Your task to perform on an android device: Open the calendar app Image 0: 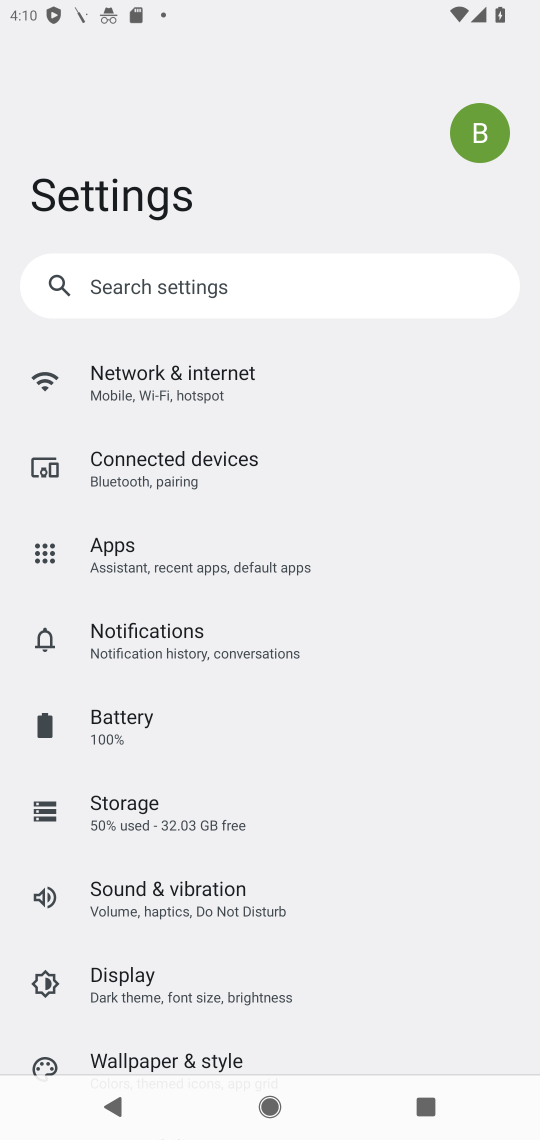
Step 0: press home button
Your task to perform on an android device: Open the calendar app Image 1: 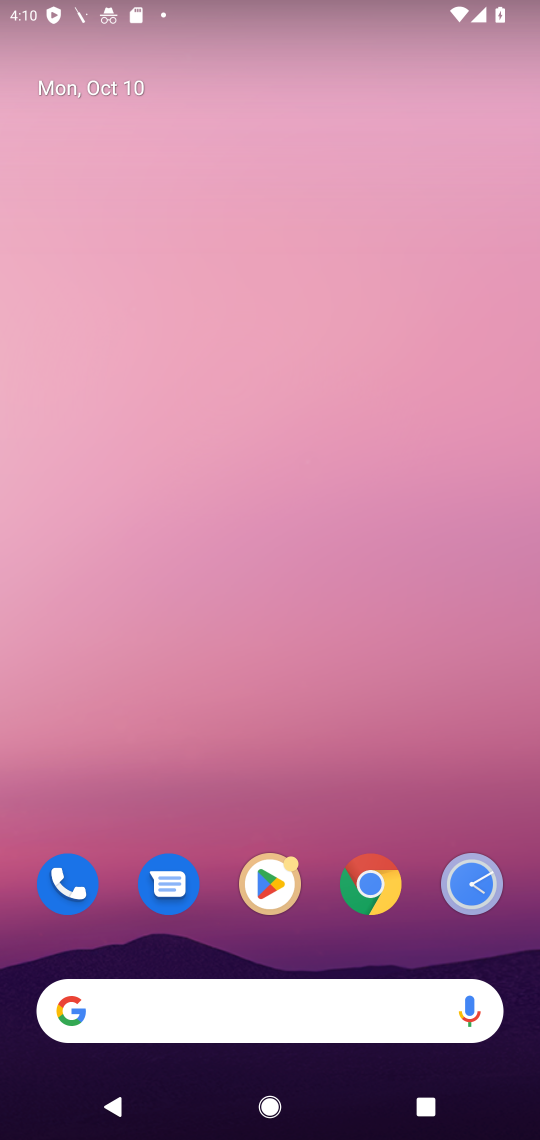
Step 1: drag from (221, 943) to (108, 148)
Your task to perform on an android device: Open the calendar app Image 2: 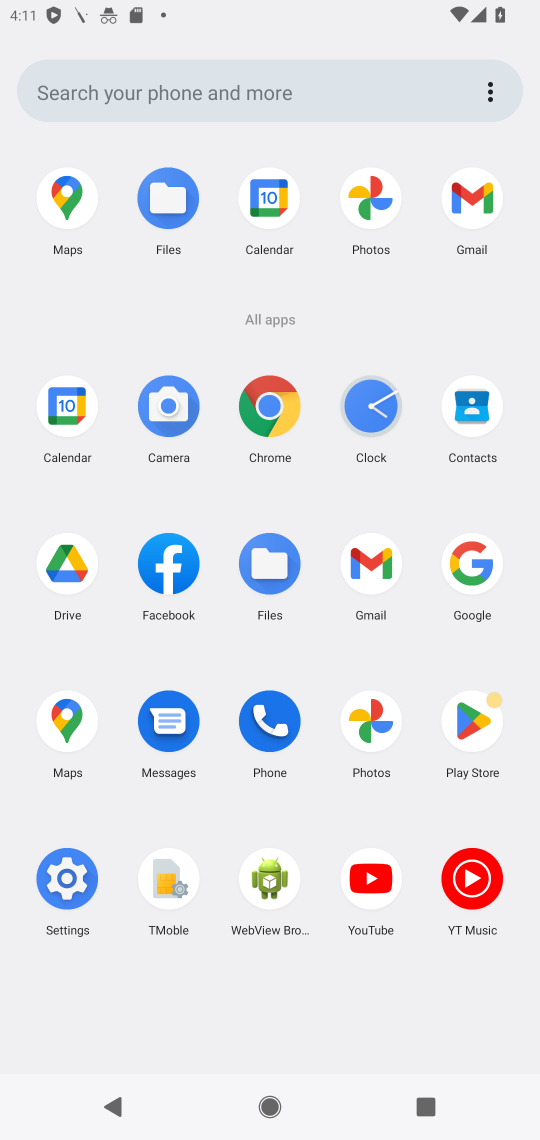
Step 2: click (69, 411)
Your task to perform on an android device: Open the calendar app Image 3: 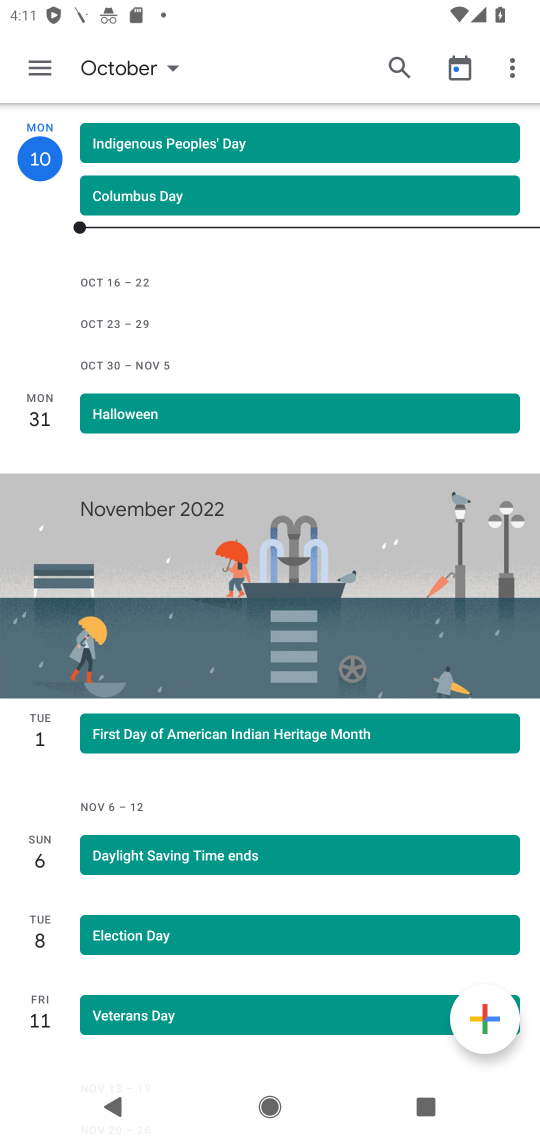
Step 3: task complete